Your task to perform on an android device: toggle show notifications on the lock screen Image 0: 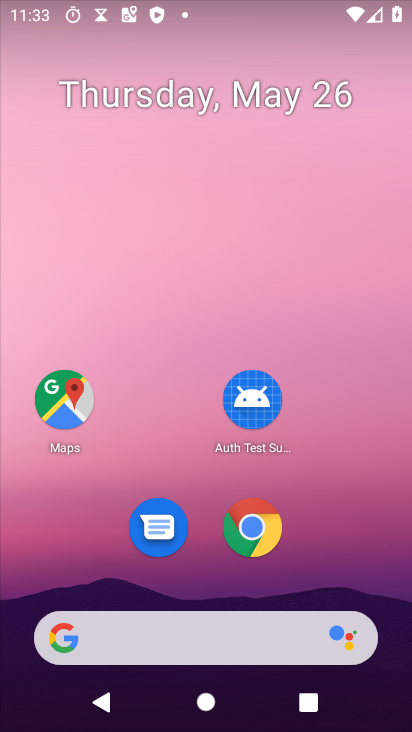
Step 0: drag from (367, 518) to (379, 17)
Your task to perform on an android device: toggle show notifications on the lock screen Image 1: 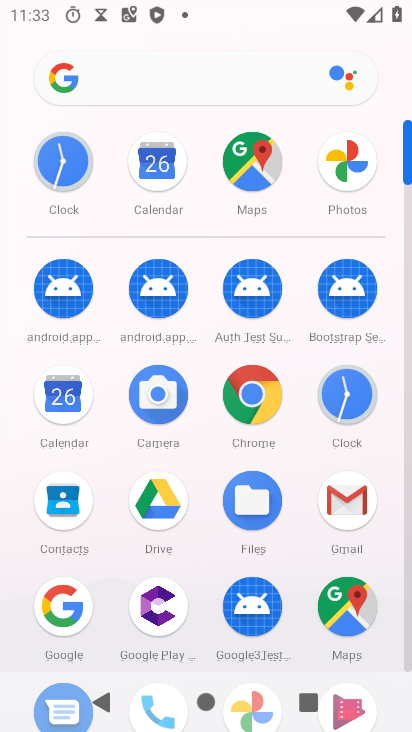
Step 1: drag from (401, 565) to (410, 303)
Your task to perform on an android device: toggle show notifications on the lock screen Image 2: 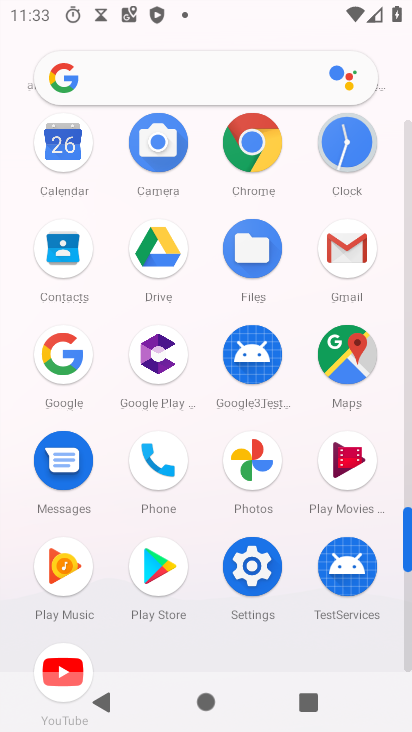
Step 2: click (248, 578)
Your task to perform on an android device: toggle show notifications on the lock screen Image 3: 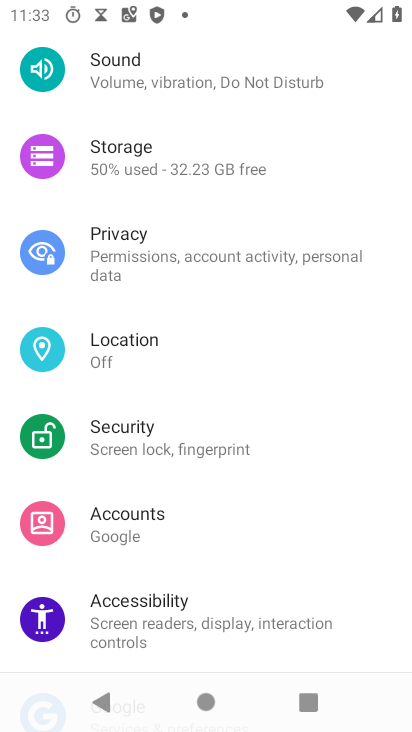
Step 3: drag from (115, 228) to (109, 560)
Your task to perform on an android device: toggle show notifications on the lock screen Image 4: 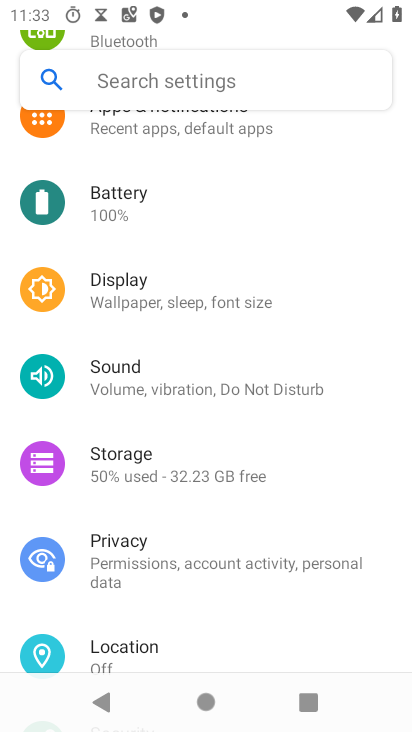
Step 4: drag from (177, 412) to (180, 653)
Your task to perform on an android device: toggle show notifications on the lock screen Image 5: 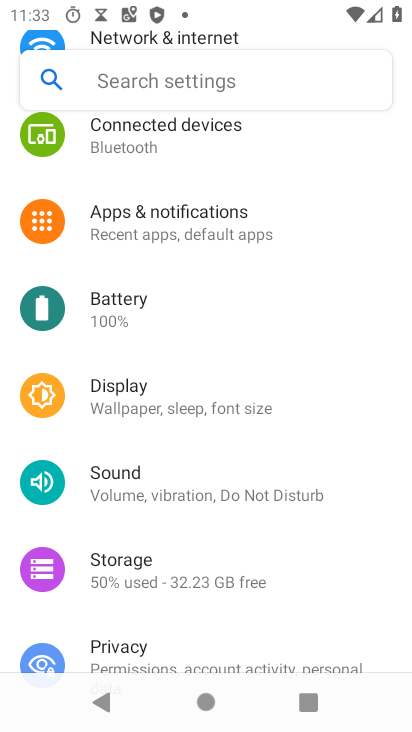
Step 5: click (170, 208)
Your task to perform on an android device: toggle show notifications on the lock screen Image 6: 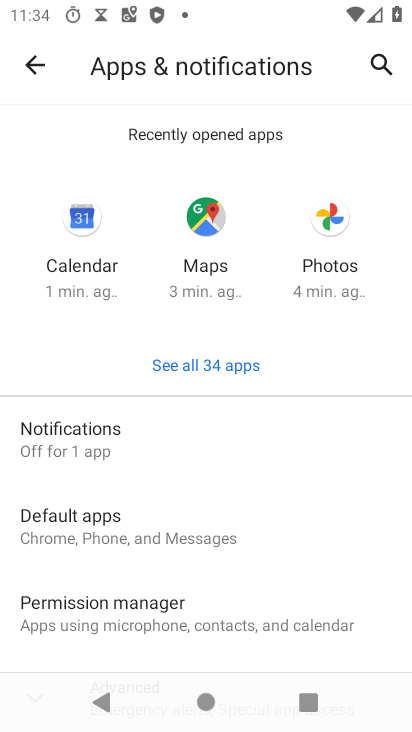
Step 6: click (36, 434)
Your task to perform on an android device: toggle show notifications on the lock screen Image 7: 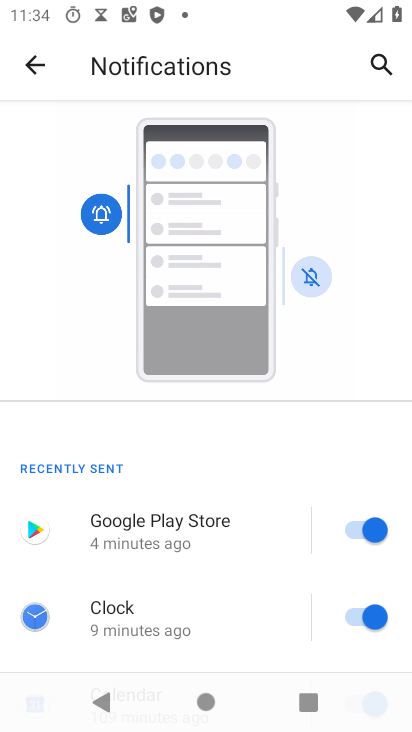
Step 7: drag from (193, 579) to (204, 178)
Your task to perform on an android device: toggle show notifications on the lock screen Image 8: 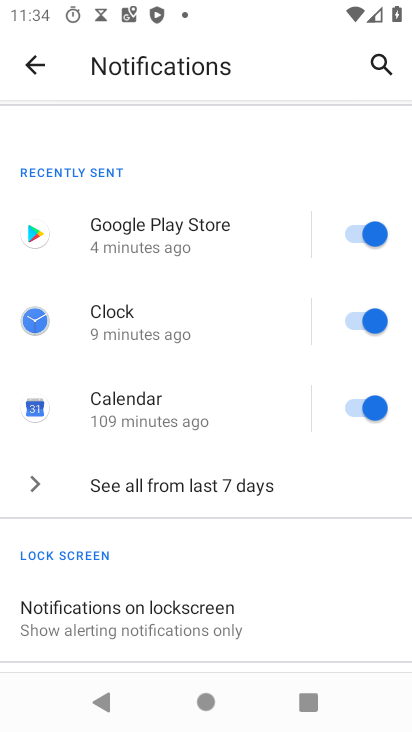
Step 8: click (171, 605)
Your task to perform on an android device: toggle show notifications on the lock screen Image 9: 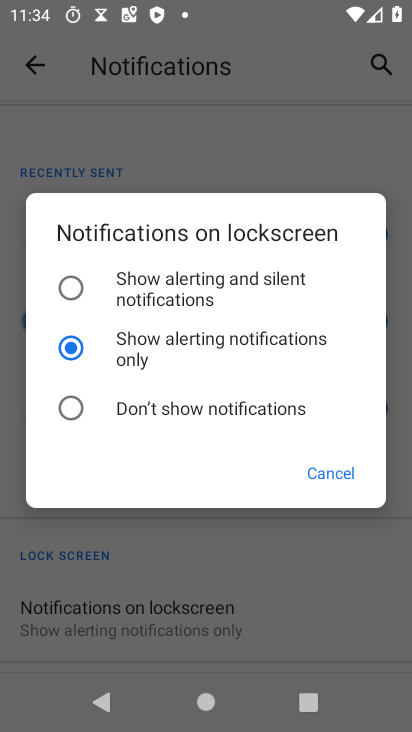
Step 9: click (118, 283)
Your task to perform on an android device: toggle show notifications on the lock screen Image 10: 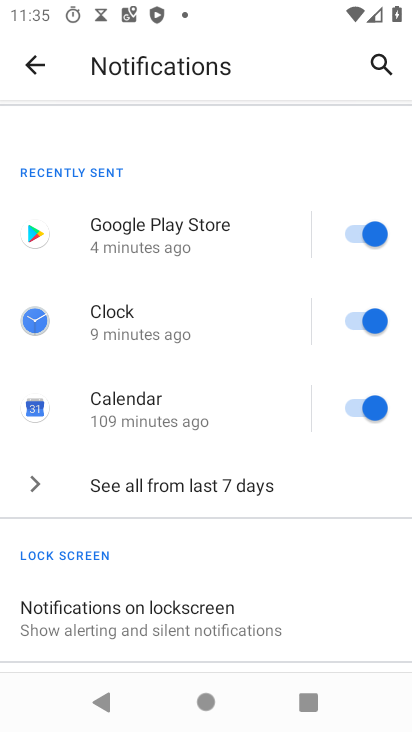
Step 10: task complete